Your task to perform on an android device: empty trash in google photos Image 0: 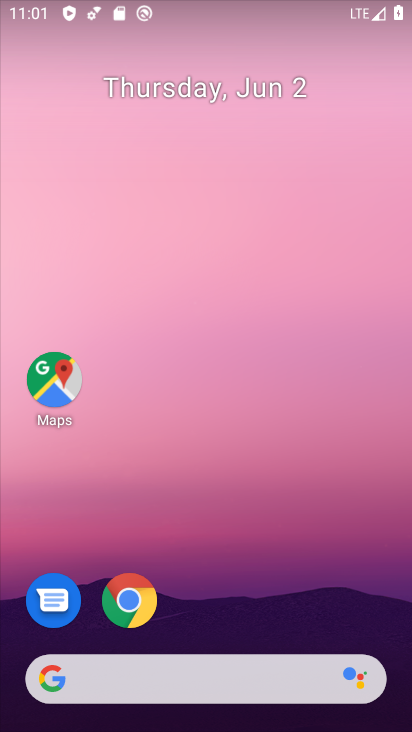
Step 0: drag from (302, 621) to (267, 220)
Your task to perform on an android device: empty trash in google photos Image 1: 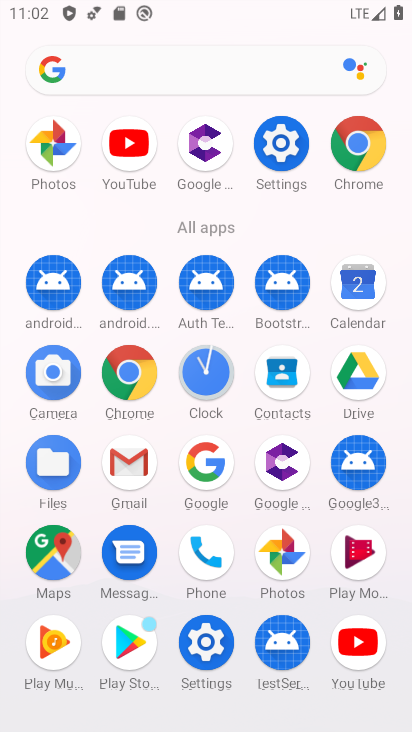
Step 1: click (55, 154)
Your task to perform on an android device: empty trash in google photos Image 2: 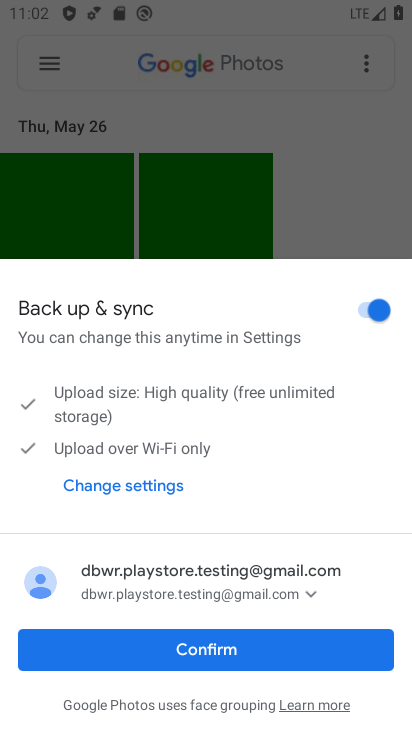
Step 2: click (201, 650)
Your task to perform on an android device: empty trash in google photos Image 3: 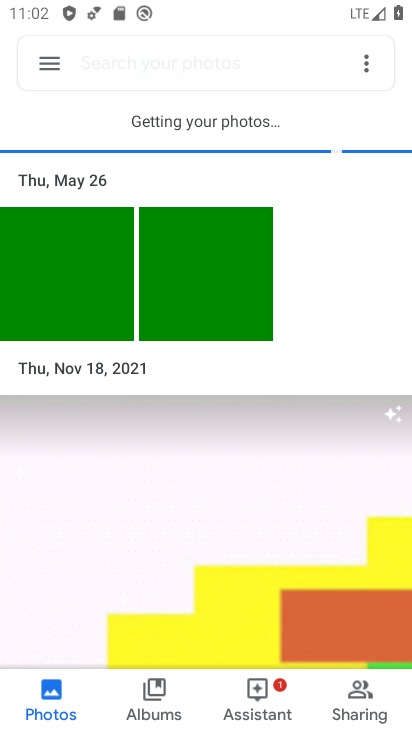
Step 3: click (55, 74)
Your task to perform on an android device: empty trash in google photos Image 4: 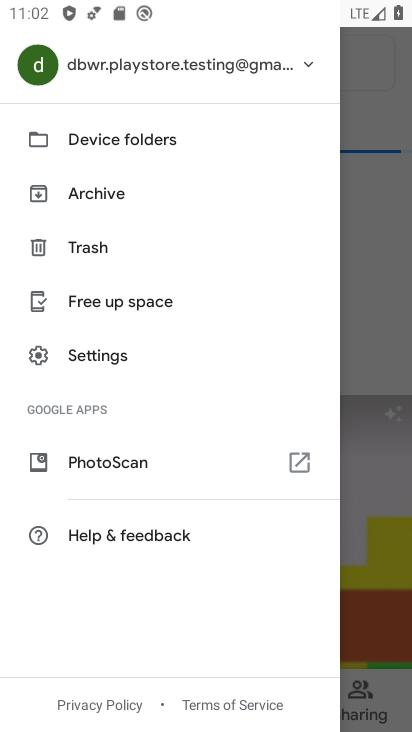
Step 4: click (86, 250)
Your task to perform on an android device: empty trash in google photos Image 5: 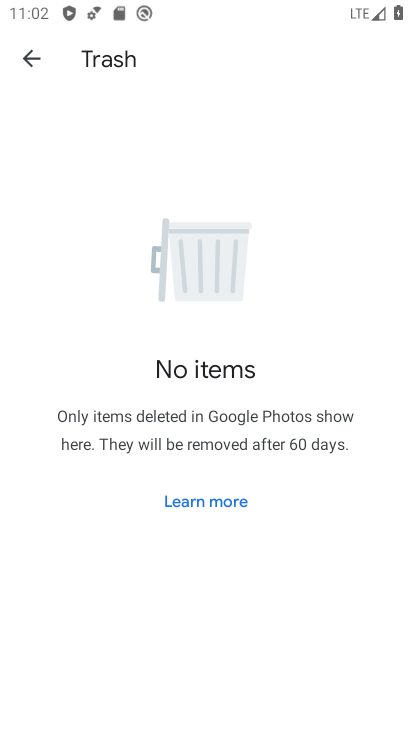
Step 5: task complete